Your task to perform on an android device: What's the price of the 1000-Watt EGO Power+ Snow Blower? Image 0: 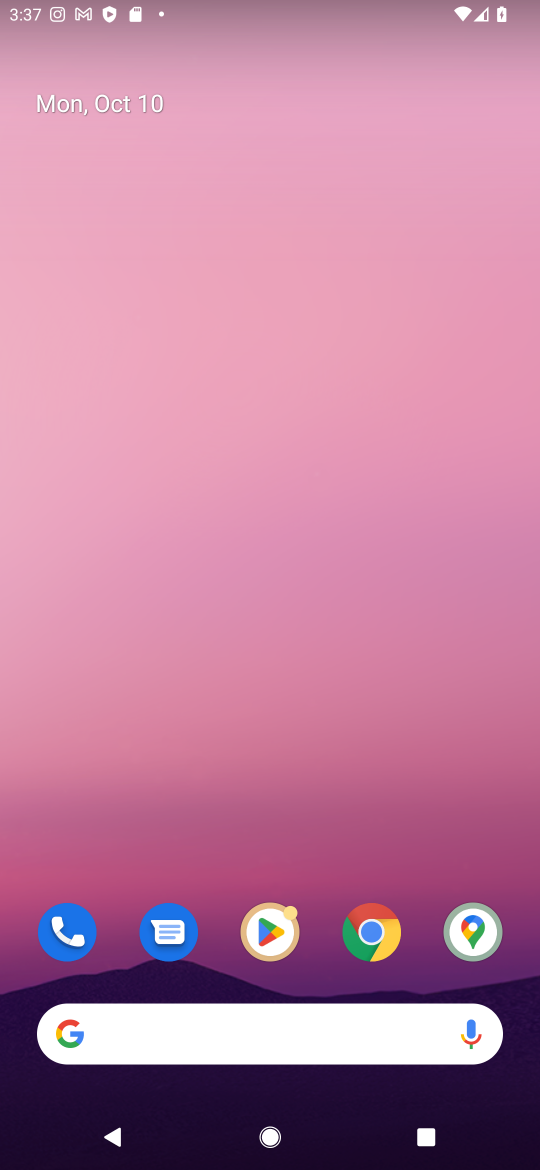
Step 0: press home button
Your task to perform on an android device: What's the price of the 1000-Watt EGO Power+ Snow Blower? Image 1: 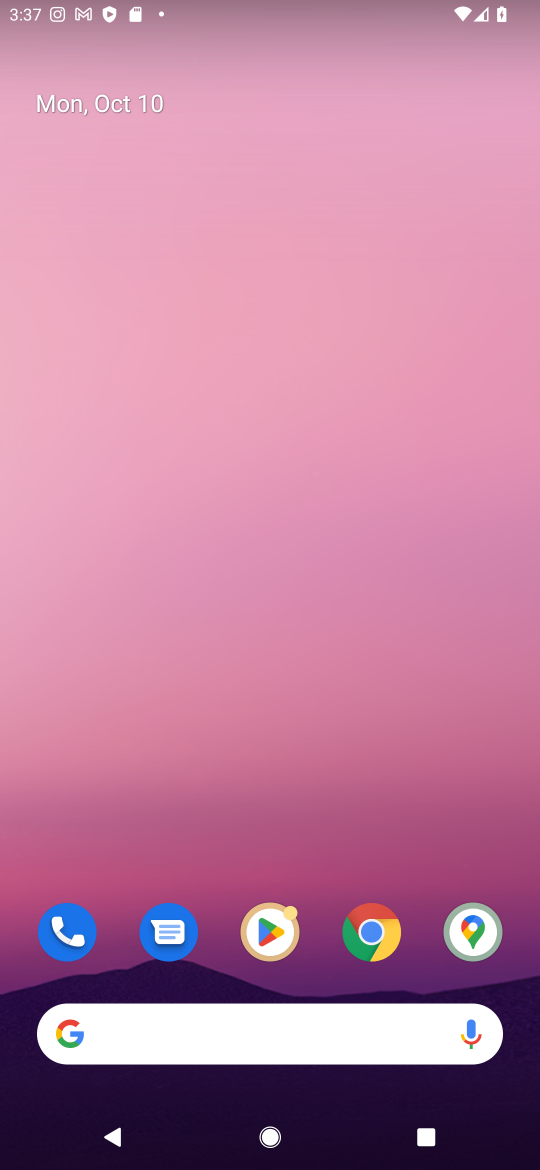
Step 1: click (226, 1044)
Your task to perform on an android device: What's the price of the 1000-Watt EGO Power+ Snow Blower? Image 2: 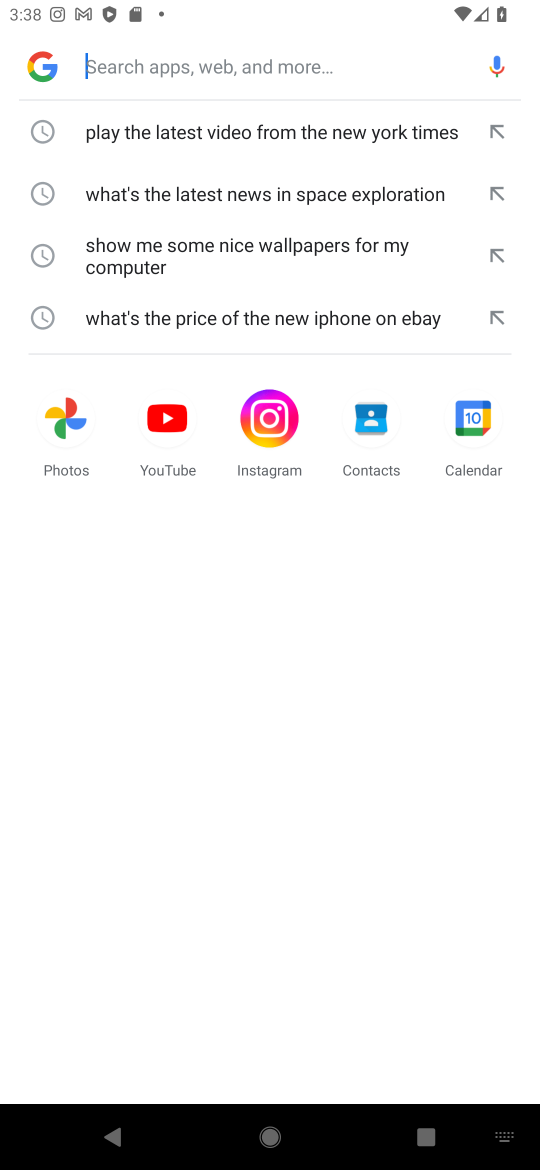
Step 2: type "What's the price of the 1000-Watt EGO Power+ Snow Blower"
Your task to perform on an android device: What's the price of the 1000-Watt EGO Power+ Snow Blower? Image 3: 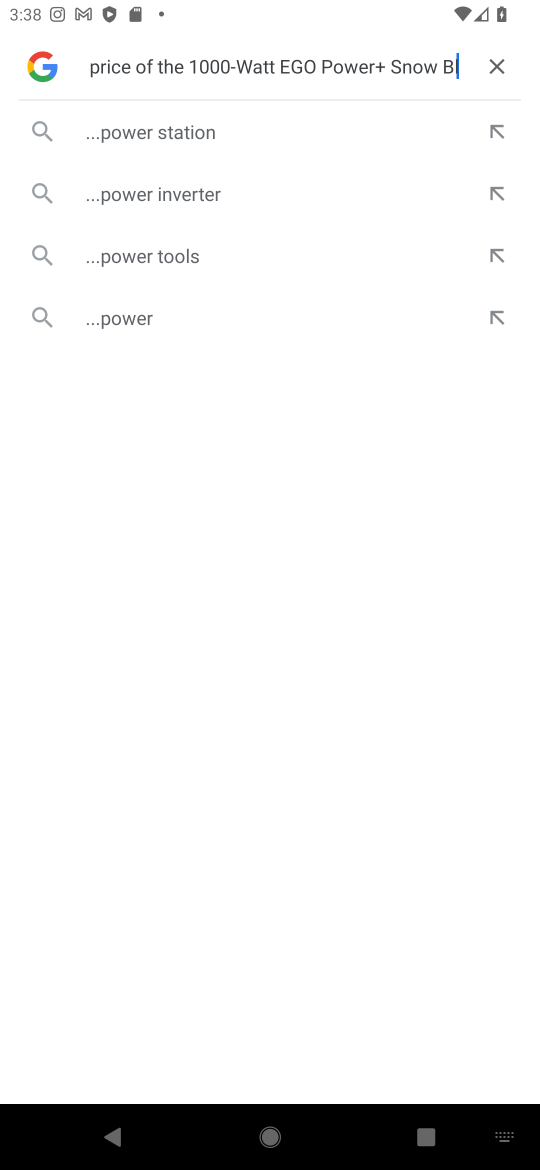
Step 3: press enter
Your task to perform on an android device: What's the price of the 1000-Watt EGO Power+ Snow Blower? Image 4: 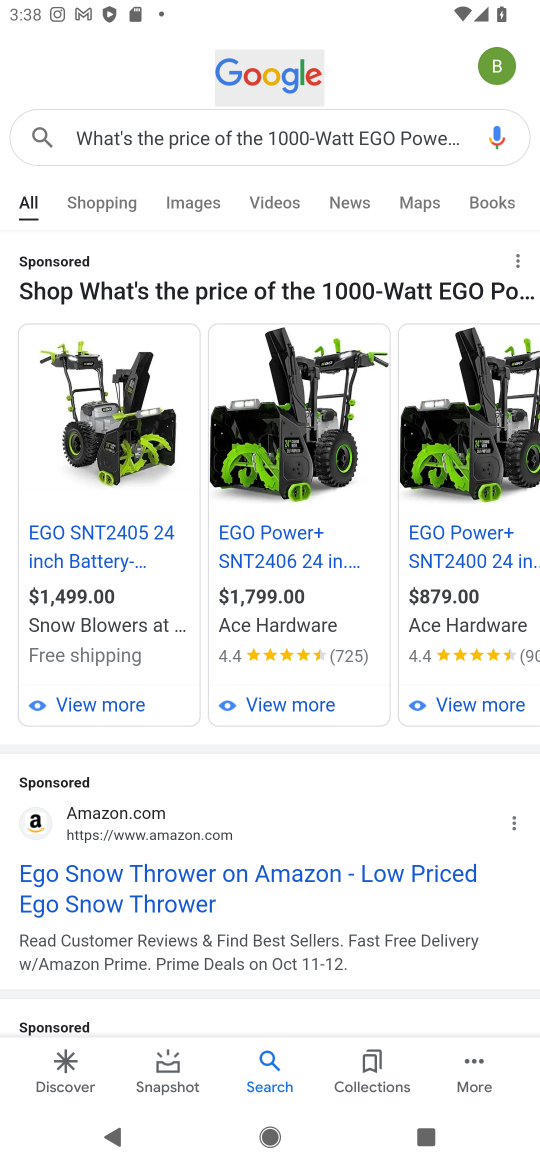
Step 4: task complete